Your task to perform on an android device: Open maps Image 0: 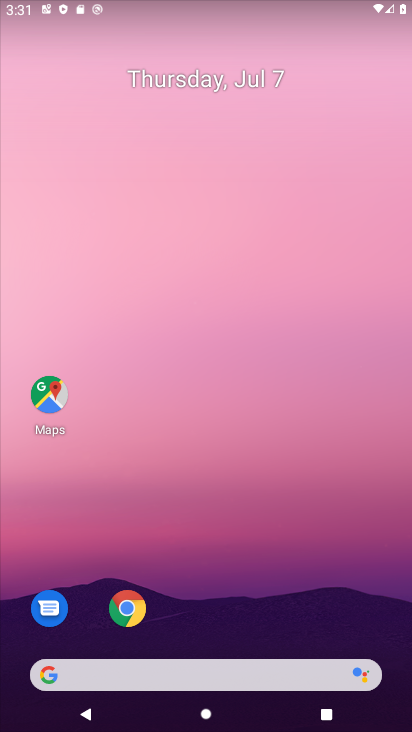
Step 0: click (49, 395)
Your task to perform on an android device: Open maps Image 1: 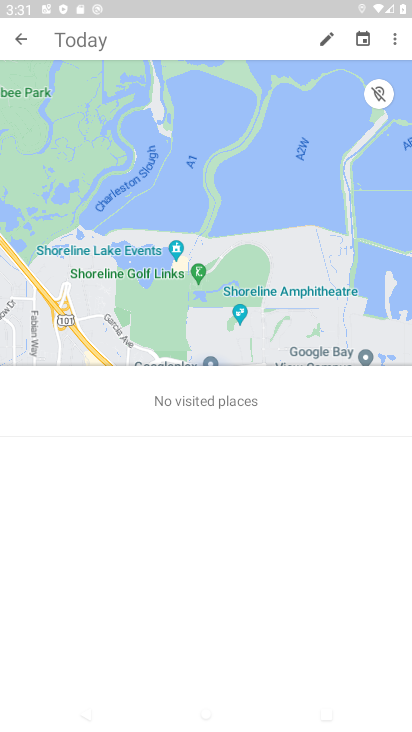
Step 1: task complete